Your task to perform on an android device: change the clock display to digital Image 0: 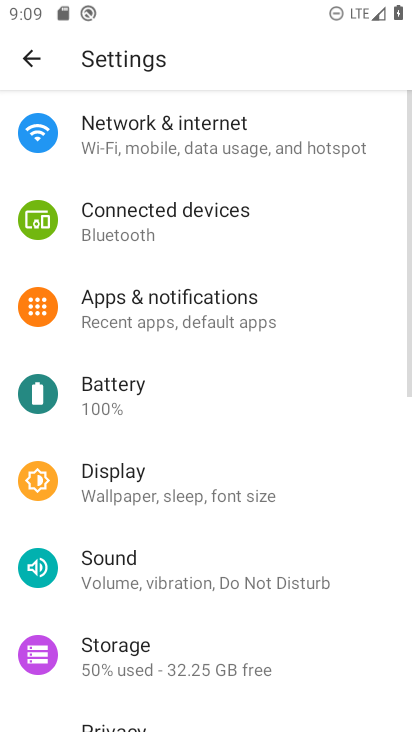
Step 0: press home button
Your task to perform on an android device: change the clock display to digital Image 1: 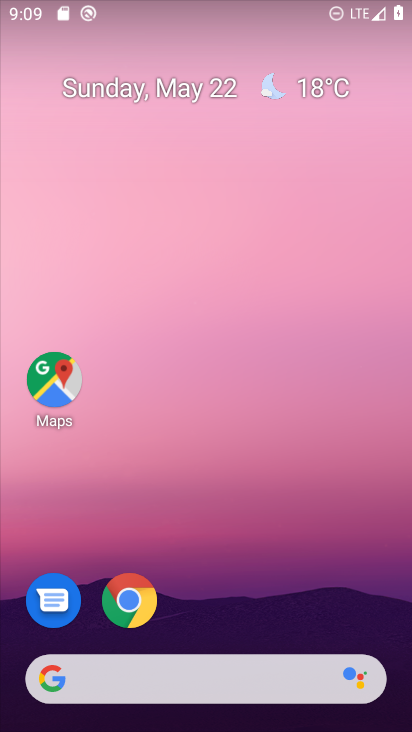
Step 1: drag from (402, 661) to (278, 26)
Your task to perform on an android device: change the clock display to digital Image 2: 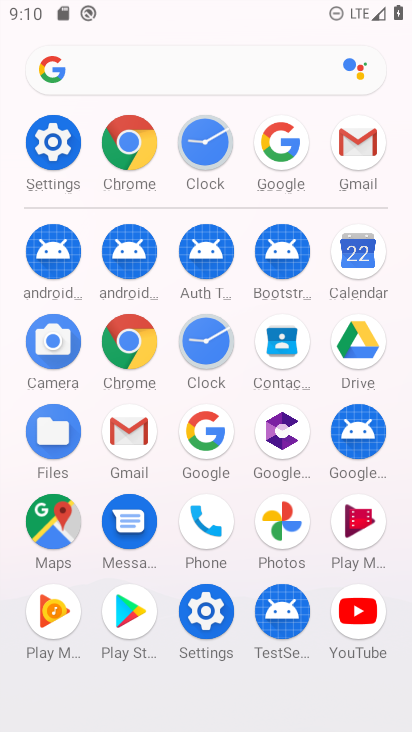
Step 2: click (223, 361)
Your task to perform on an android device: change the clock display to digital Image 3: 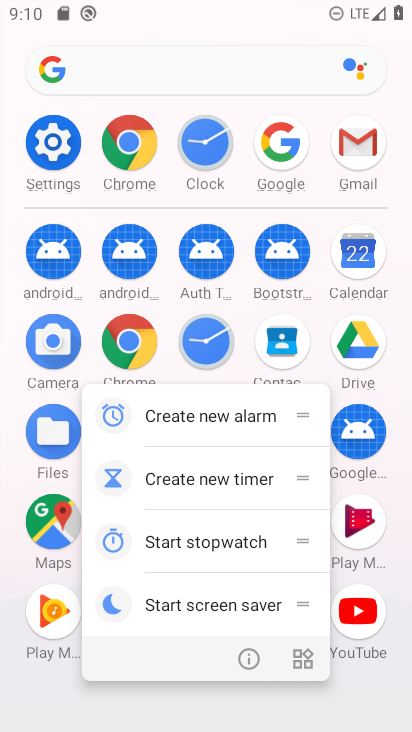
Step 3: click (213, 350)
Your task to perform on an android device: change the clock display to digital Image 4: 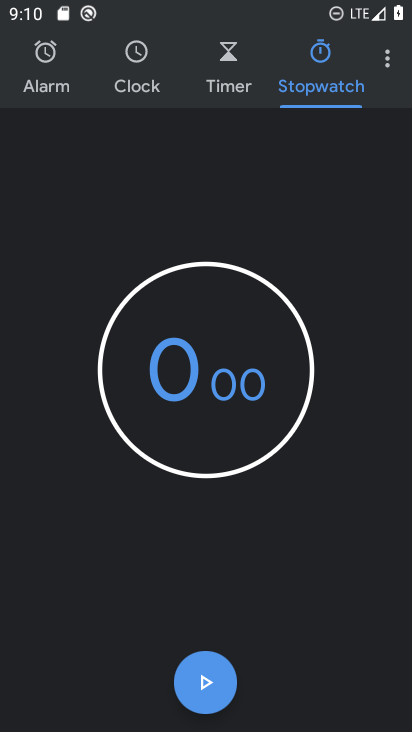
Step 4: click (393, 60)
Your task to perform on an android device: change the clock display to digital Image 5: 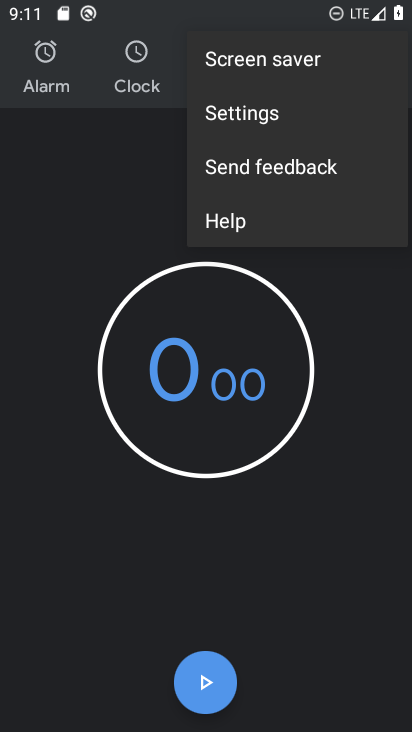
Step 5: click (284, 118)
Your task to perform on an android device: change the clock display to digital Image 6: 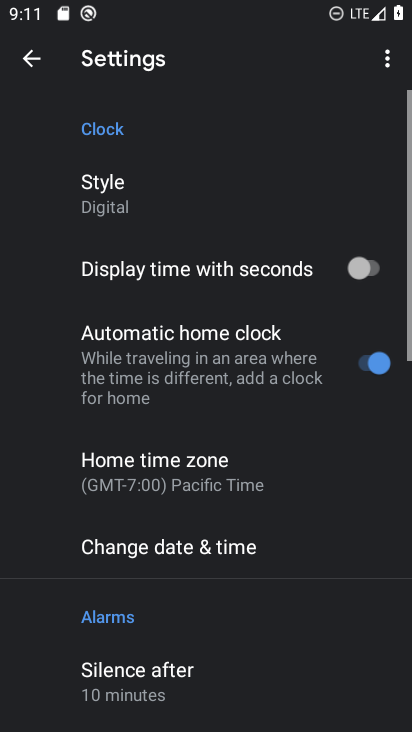
Step 6: click (171, 191)
Your task to perform on an android device: change the clock display to digital Image 7: 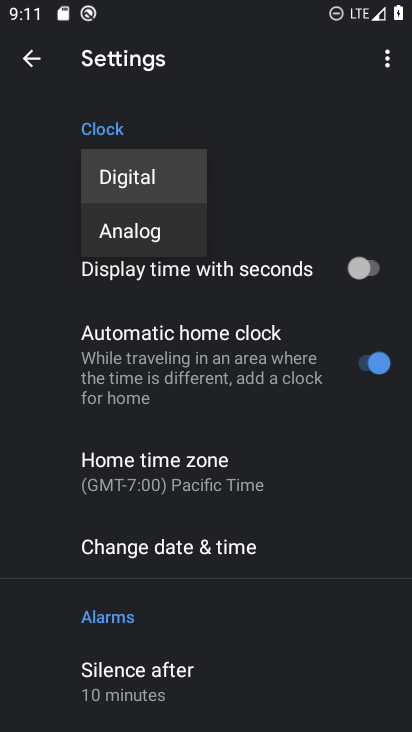
Step 7: click (171, 191)
Your task to perform on an android device: change the clock display to digital Image 8: 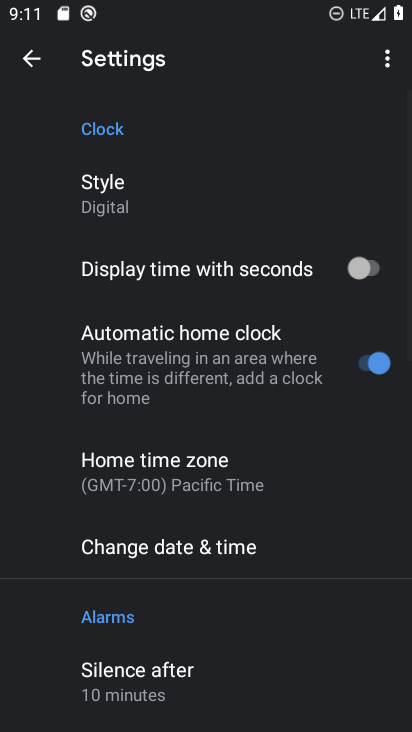
Step 8: task complete